Your task to perform on an android device: Show me recent news Image 0: 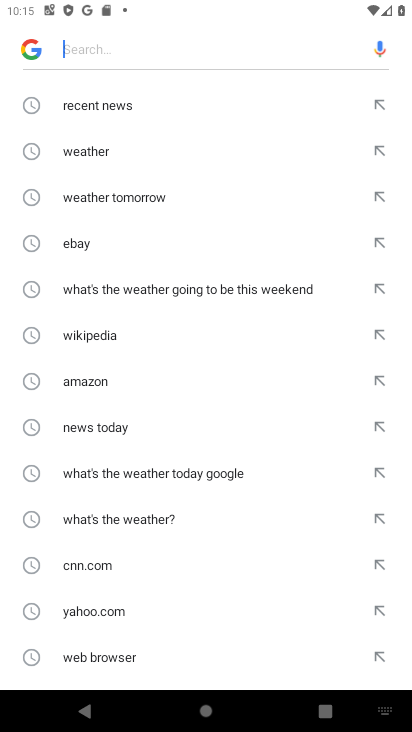
Step 0: press home button
Your task to perform on an android device: Show me recent news Image 1: 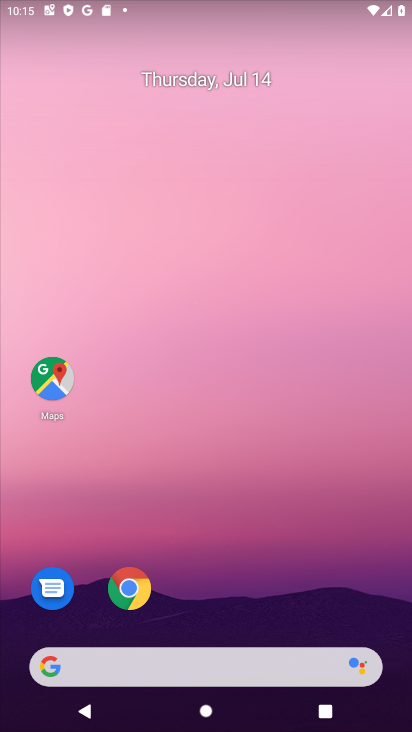
Step 1: click (199, 671)
Your task to perform on an android device: Show me recent news Image 2: 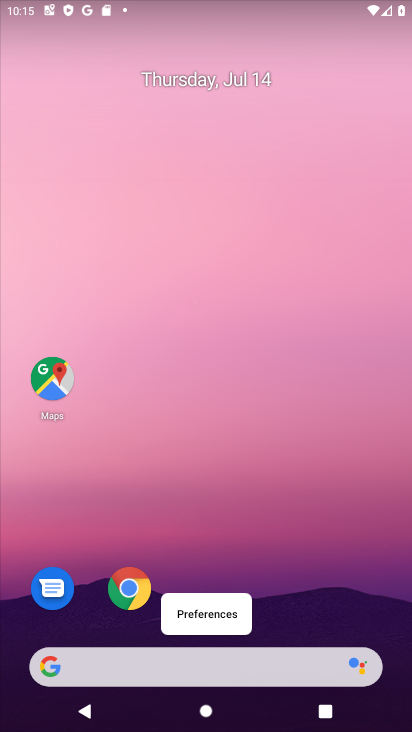
Step 2: click (199, 671)
Your task to perform on an android device: Show me recent news Image 3: 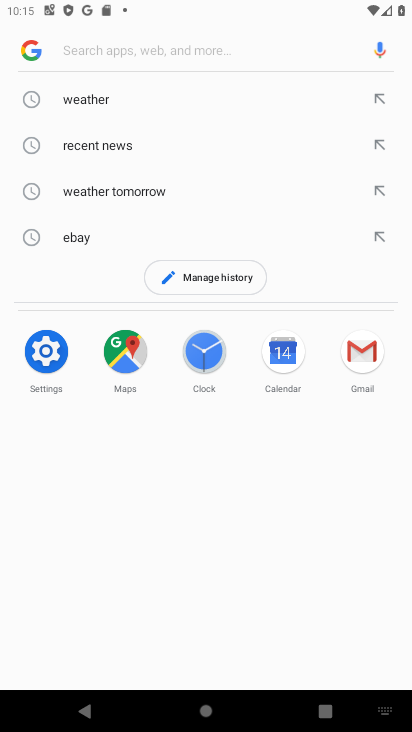
Step 3: click (107, 140)
Your task to perform on an android device: Show me recent news Image 4: 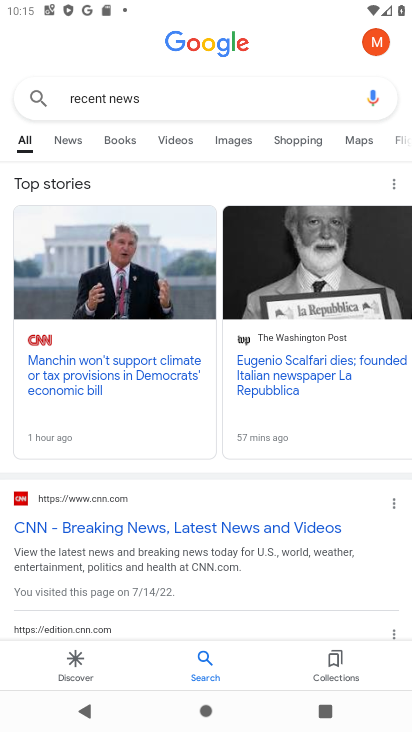
Step 4: click (67, 138)
Your task to perform on an android device: Show me recent news Image 5: 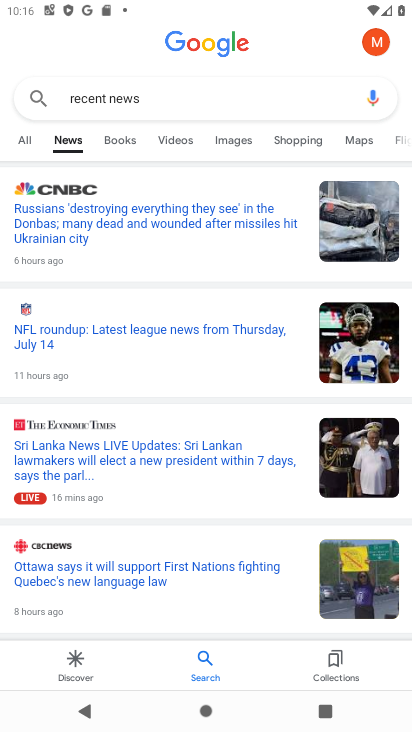
Step 5: task complete